Your task to perform on an android device: find which apps use the phone's location Image 0: 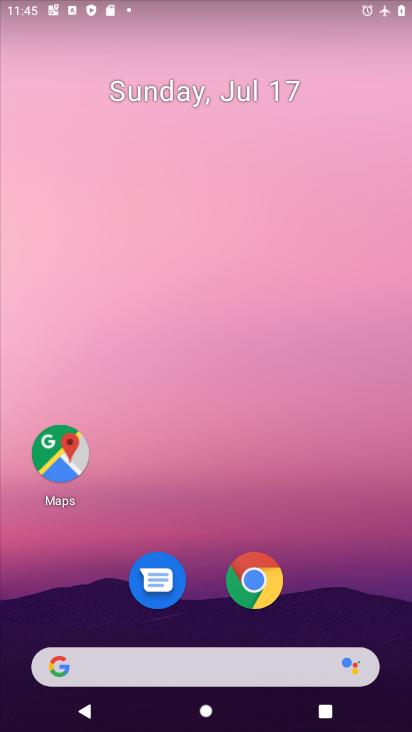
Step 0: drag from (184, 621) to (300, 74)
Your task to perform on an android device: find which apps use the phone's location Image 1: 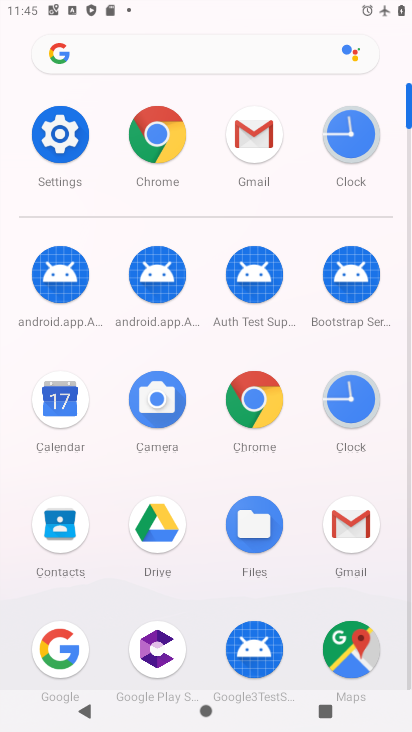
Step 1: click (57, 142)
Your task to perform on an android device: find which apps use the phone's location Image 2: 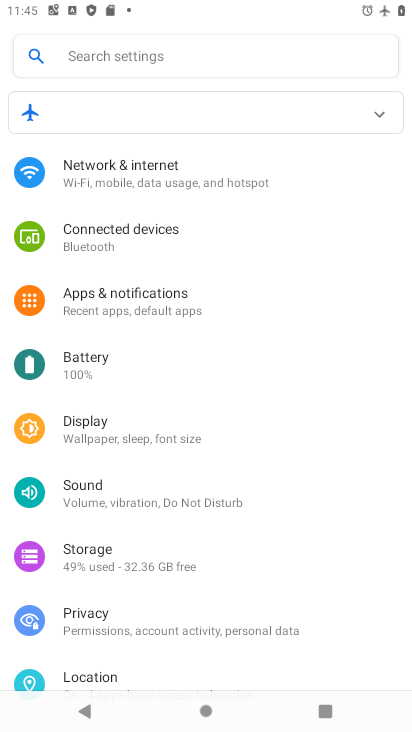
Step 2: drag from (128, 626) to (140, 461)
Your task to perform on an android device: find which apps use the phone's location Image 3: 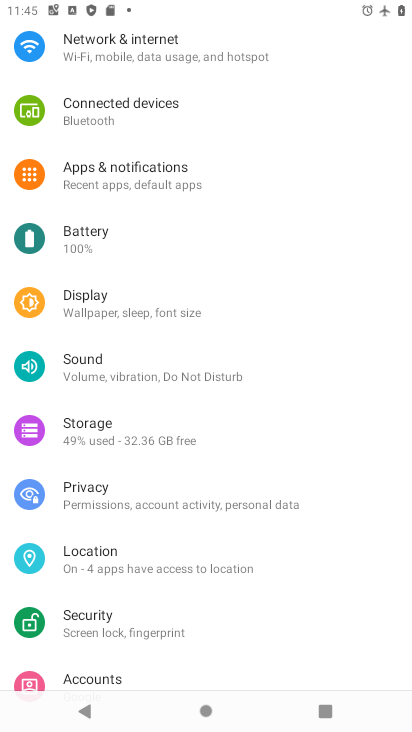
Step 3: click (134, 573)
Your task to perform on an android device: find which apps use the phone's location Image 4: 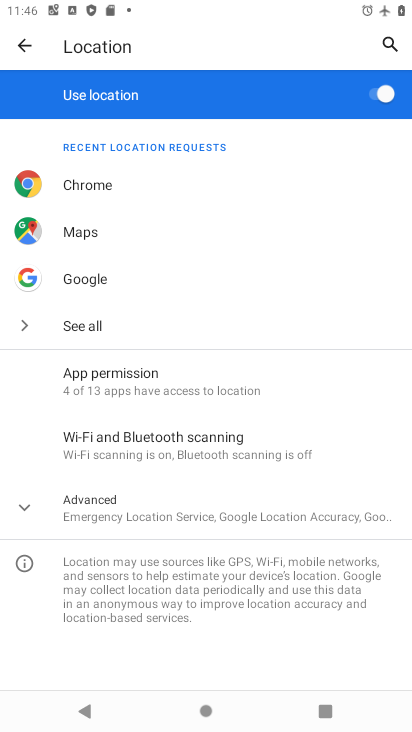
Step 4: click (160, 378)
Your task to perform on an android device: find which apps use the phone's location Image 5: 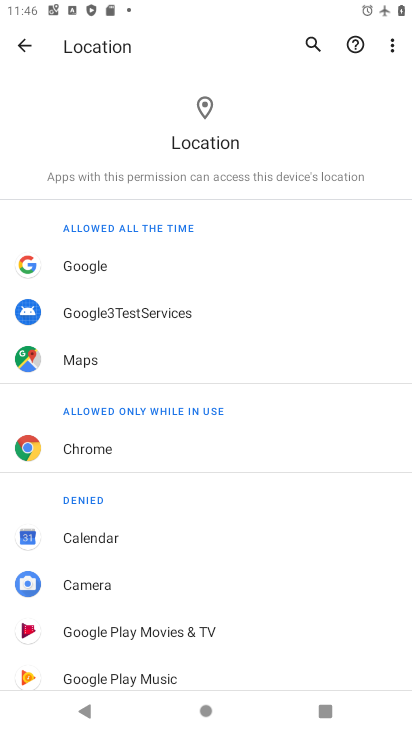
Step 5: task complete